Your task to perform on an android device: Go to Yahoo.com Image 0: 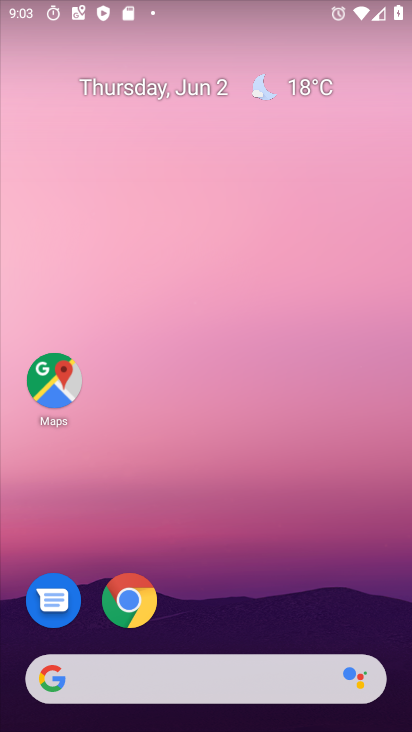
Step 0: drag from (369, 609) to (362, 200)
Your task to perform on an android device: Go to Yahoo.com Image 1: 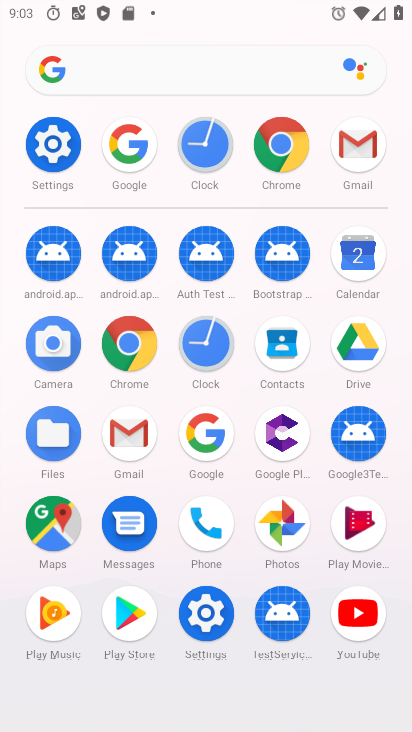
Step 1: click (138, 345)
Your task to perform on an android device: Go to Yahoo.com Image 2: 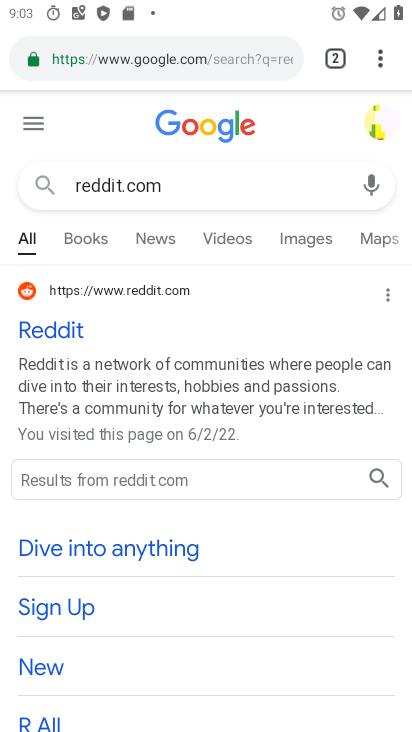
Step 2: click (236, 65)
Your task to perform on an android device: Go to Yahoo.com Image 3: 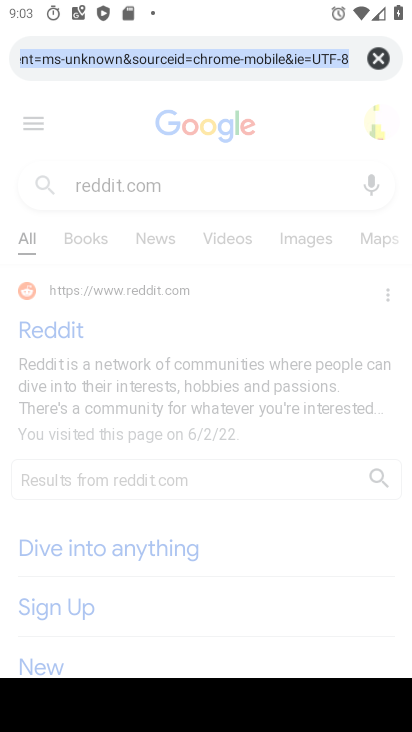
Step 3: click (378, 67)
Your task to perform on an android device: Go to Yahoo.com Image 4: 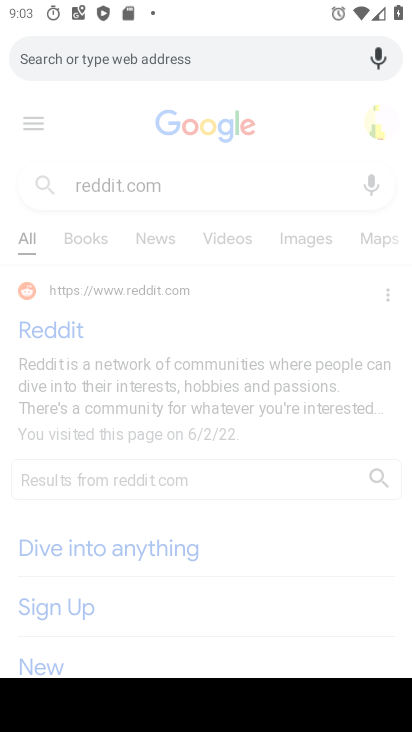
Step 4: type "yahoo.com"
Your task to perform on an android device: Go to Yahoo.com Image 5: 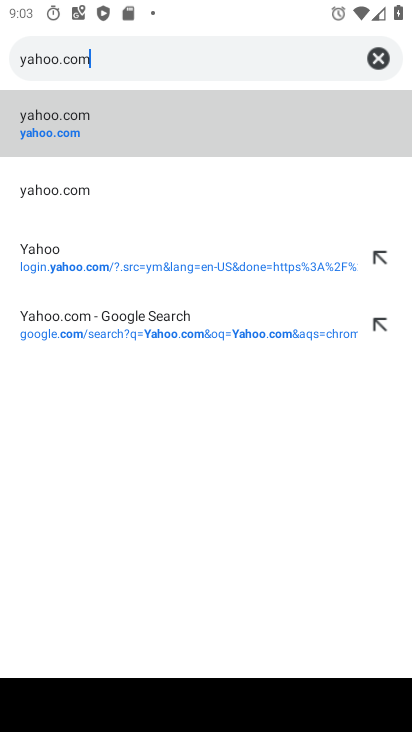
Step 5: click (124, 128)
Your task to perform on an android device: Go to Yahoo.com Image 6: 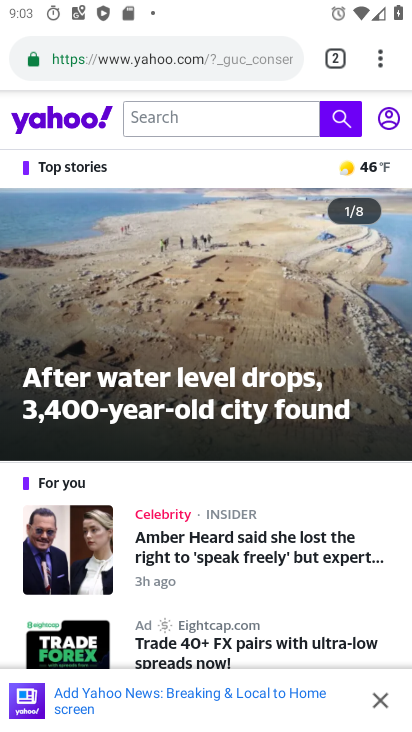
Step 6: task complete